Your task to perform on an android device: Show the shopping cart on target.com. Add "macbook pro 15 inch" to the cart on target.com Image 0: 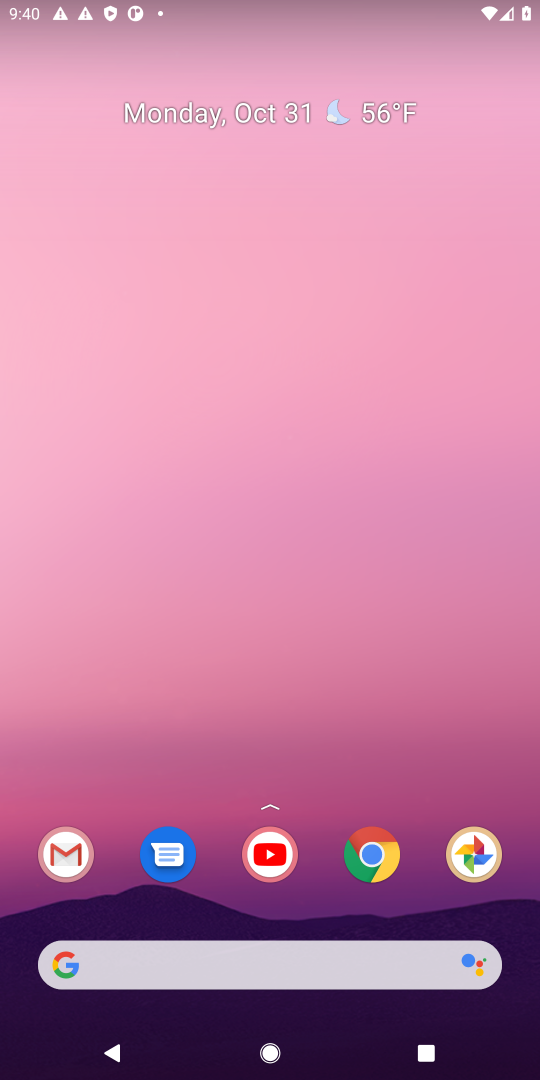
Step 0: click (361, 974)
Your task to perform on an android device: Show the shopping cart on target.com. Add "macbook pro 15 inch" to the cart on target.com Image 1: 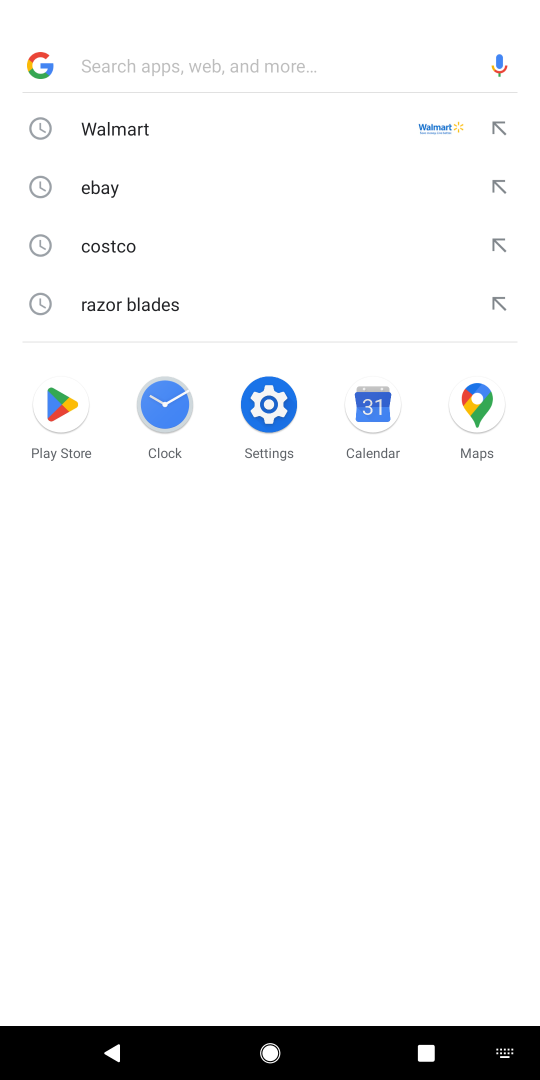
Step 1: type "target"
Your task to perform on an android device: Show the shopping cart on target.com. Add "macbook pro 15 inch" to the cart on target.com Image 2: 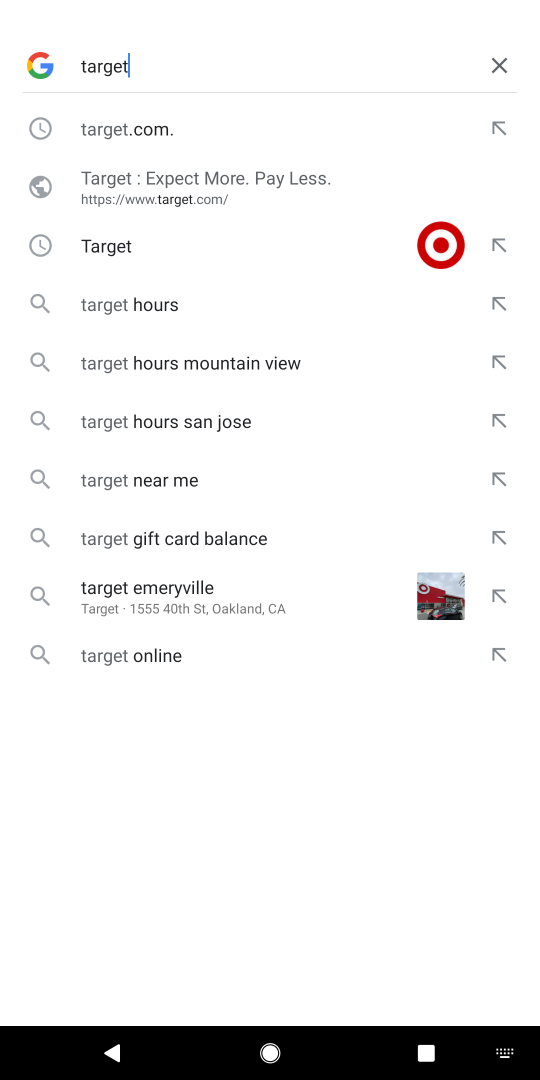
Step 2: click (118, 131)
Your task to perform on an android device: Show the shopping cart on target.com. Add "macbook pro 15 inch" to the cart on target.com Image 3: 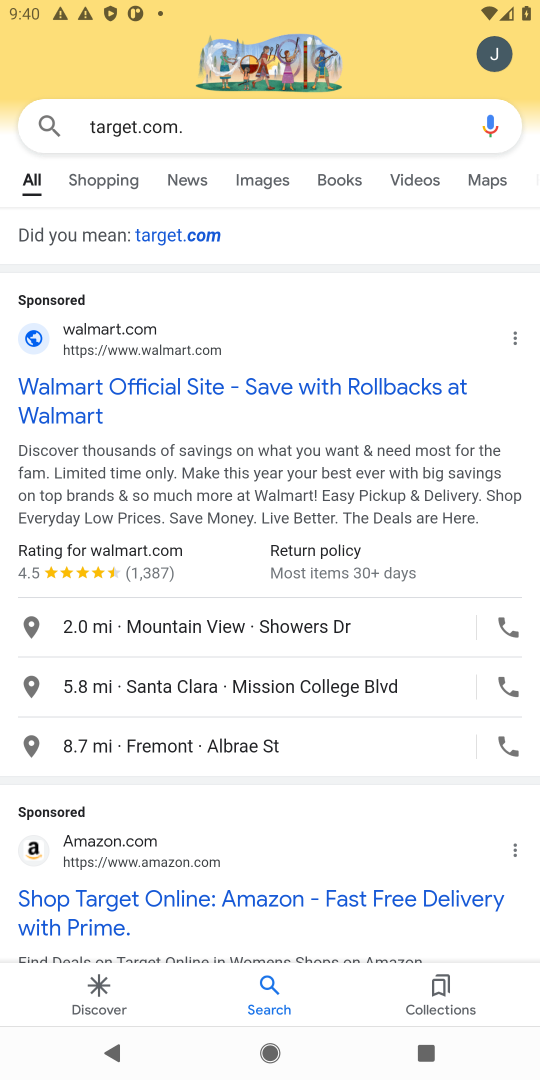
Step 3: click (101, 394)
Your task to perform on an android device: Show the shopping cart on target.com. Add "macbook pro 15 inch" to the cart on target.com Image 4: 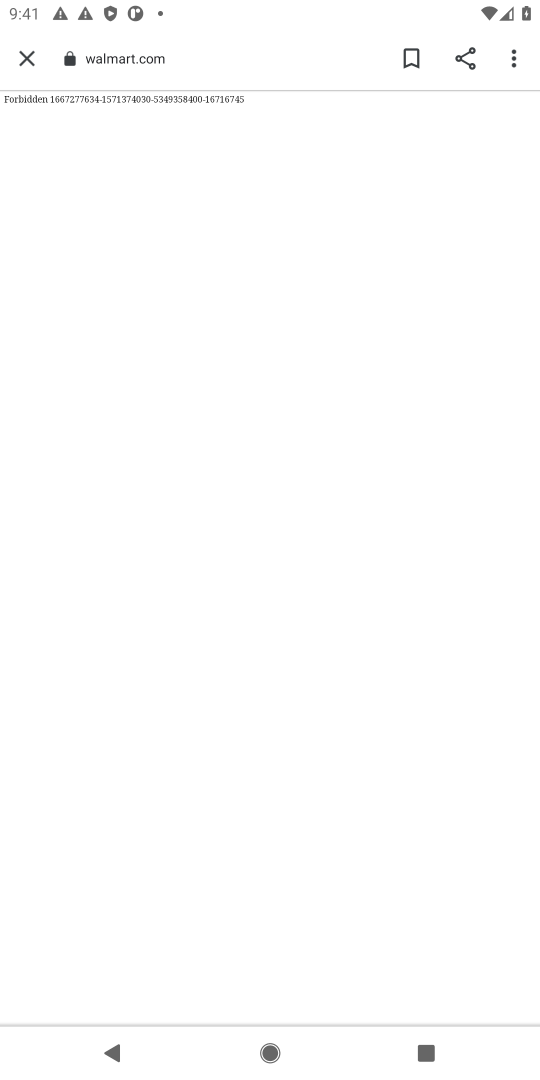
Step 4: click (20, 61)
Your task to perform on an android device: Show the shopping cart on target.com. Add "macbook pro 15 inch" to the cart on target.com Image 5: 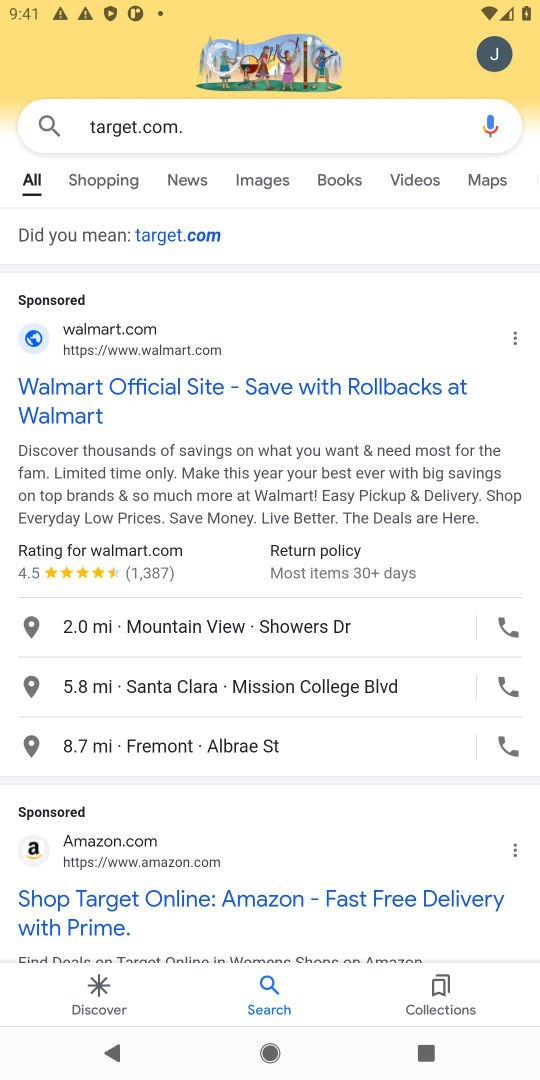
Step 5: click (246, 139)
Your task to perform on an android device: Show the shopping cart on target.com. Add "macbook pro 15 inch" to the cart on target.com Image 6: 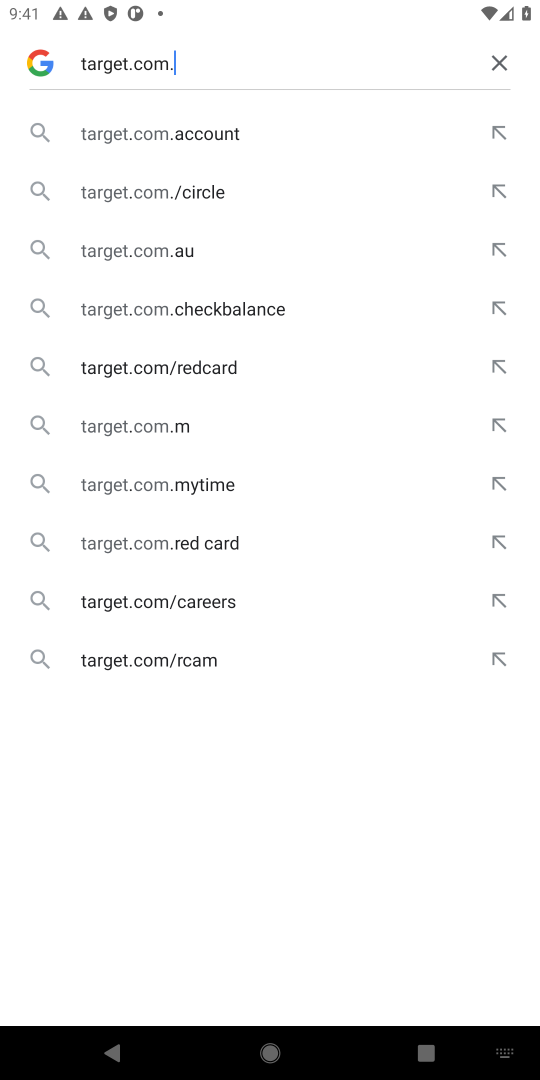
Step 6: click (199, 187)
Your task to perform on an android device: Show the shopping cart on target.com. Add "macbook pro 15 inch" to the cart on target.com Image 7: 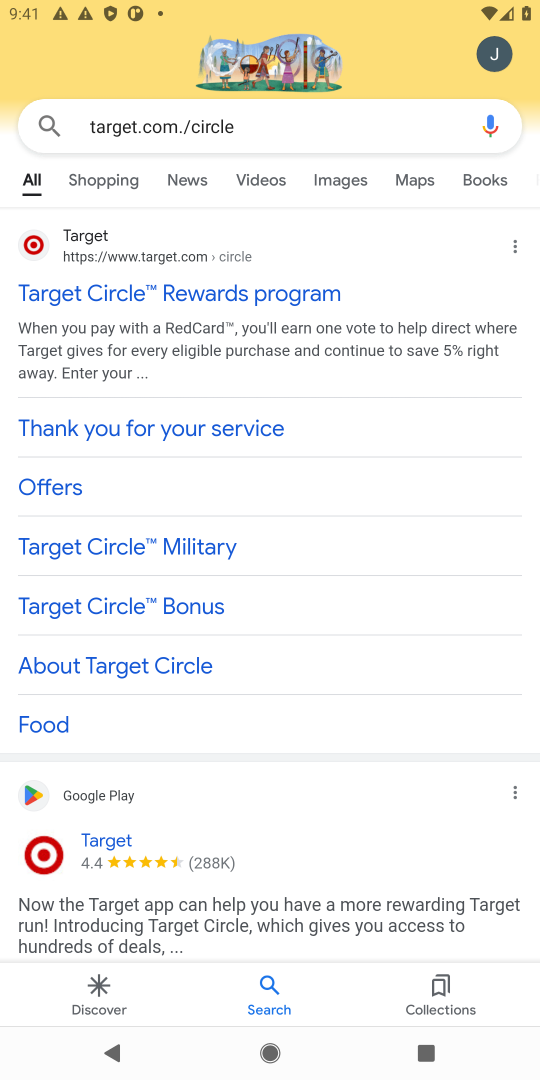
Step 7: click (183, 288)
Your task to perform on an android device: Show the shopping cart on target.com. Add "macbook pro 15 inch" to the cart on target.com Image 8: 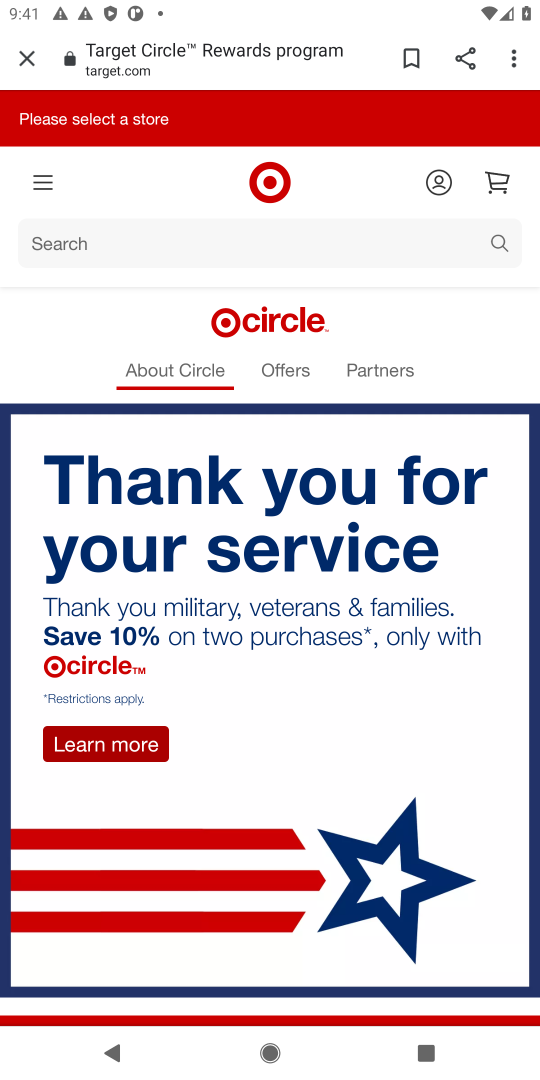
Step 8: click (449, 227)
Your task to perform on an android device: Show the shopping cart on target.com. Add "macbook pro 15 inch" to the cart on target.com Image 9: 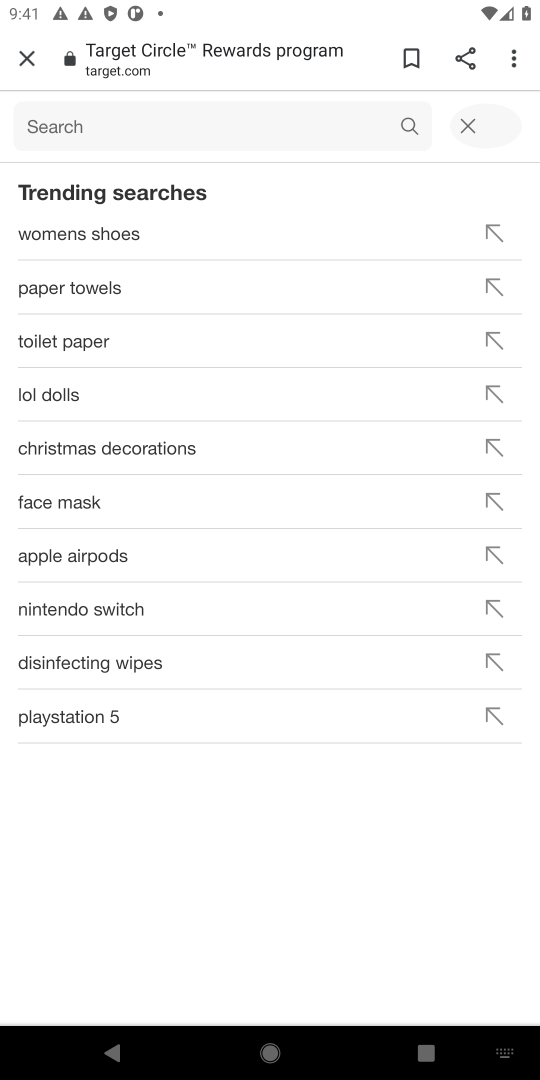
Step 9: type "macbook pro15"
Your task to perform on an android device: Show the shopping cart on target.com. Add "macbook pro 15 inch" to the cart on target.com Image 10: 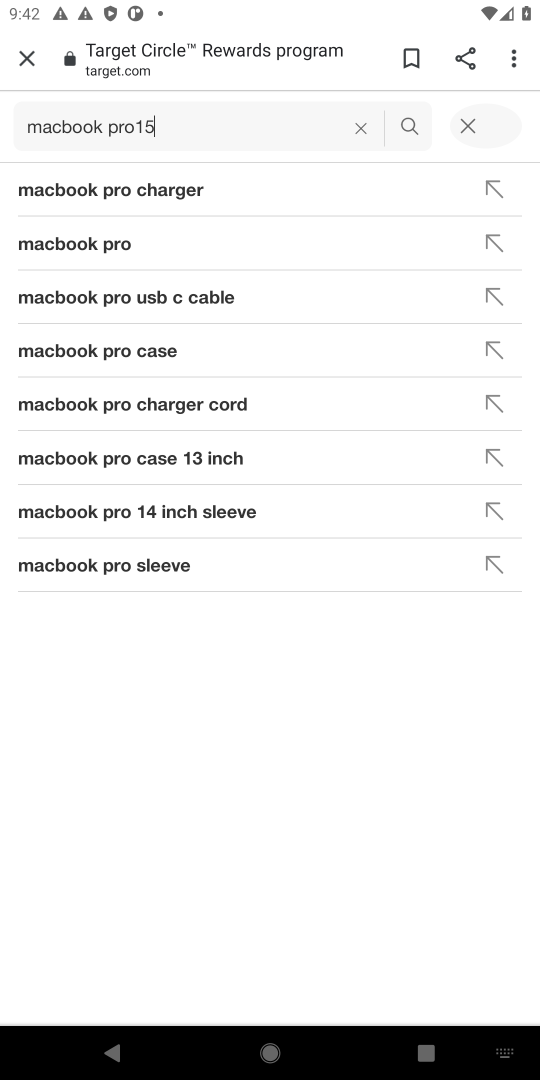
Step 10: click (403, 127)
Your task to perform on an android device: Show the shopping cart on target.com. Add "macbook pro 15 inch" to the cart on target.com Image 11: 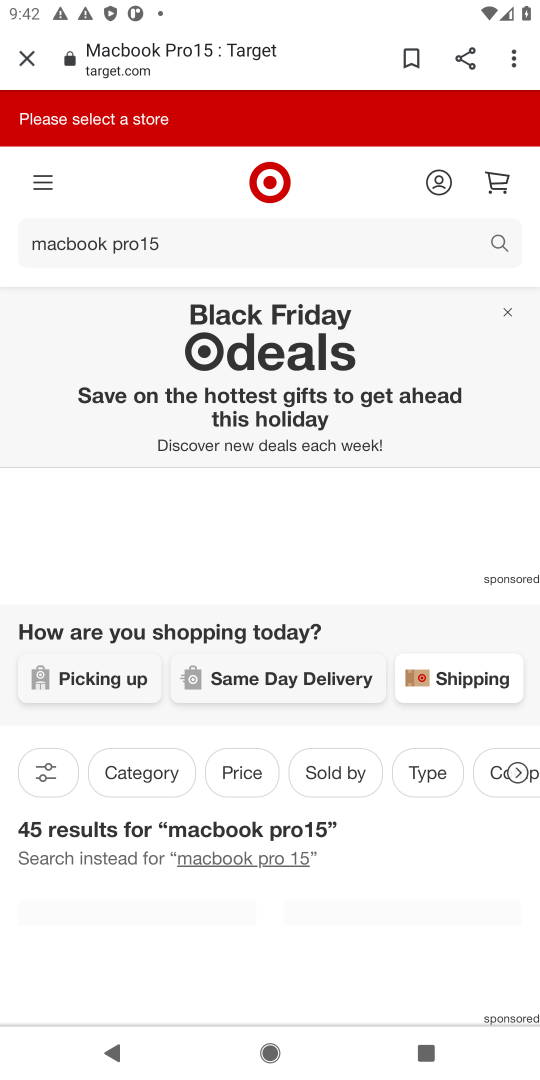
Step 11: click (202, 818)
Your task to perform on an android device: Show the shopping cart on target.com. Add "macbook pro 15 inch" to the cart on target.com Image 12: 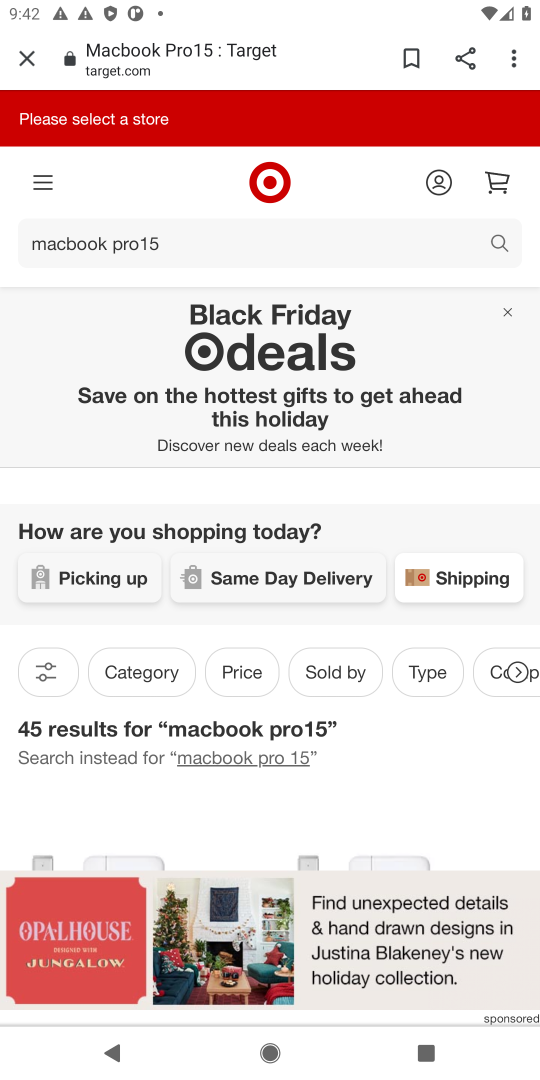
Step 12: task complete